Your task to perform on an android device: Go to display settings Image 0: 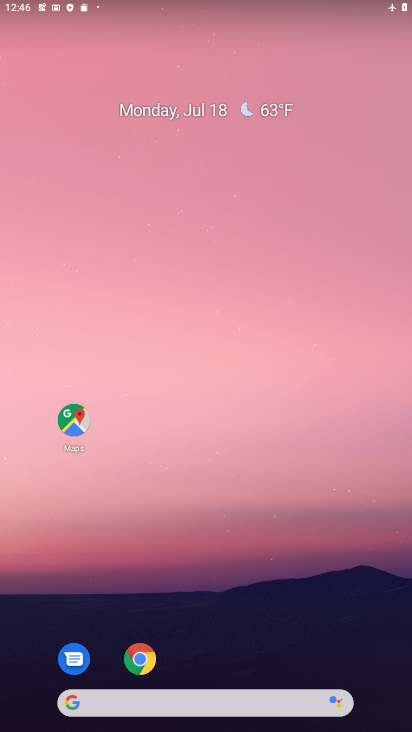
Step 0: drag from (217, 693) to (304, 205)
Your task to perform on an android device: Go to display settings Image 1: 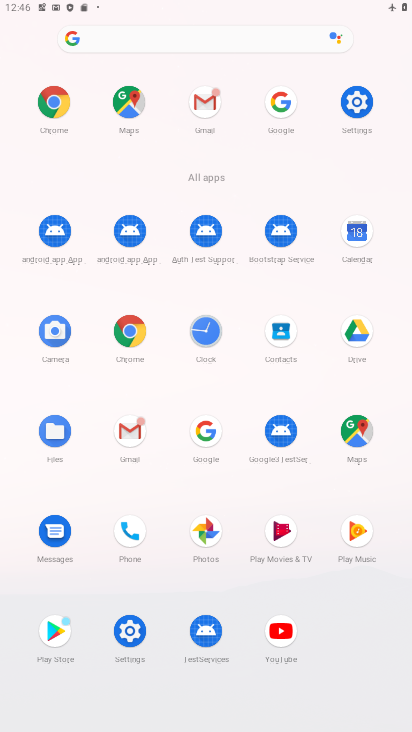
Step 1: click (355, 101)
Your task to perform on an android device: Go to display settings Image 2: 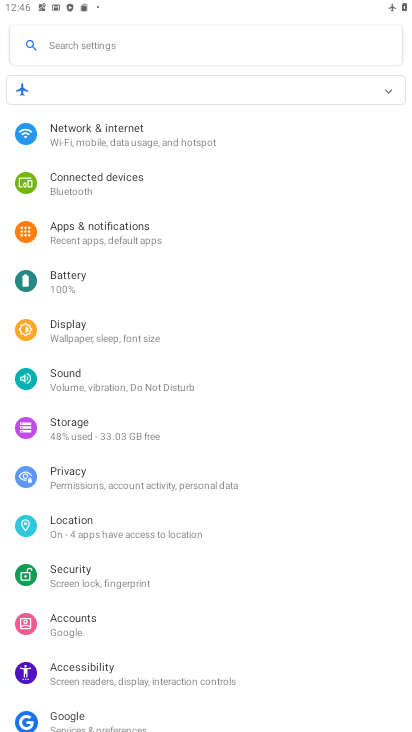
Step 2: click (83, 333)
Your task to perform on an android device: Go to display settings Image 3: 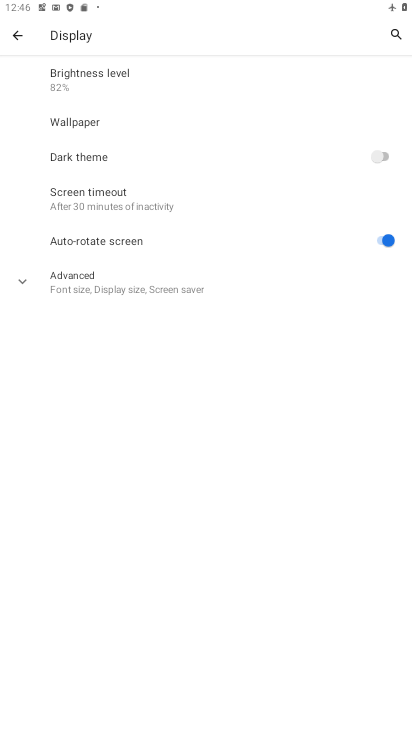
Step 3: click (83, 277)
Your task to perform on an android device: Go to display settings Image 4: 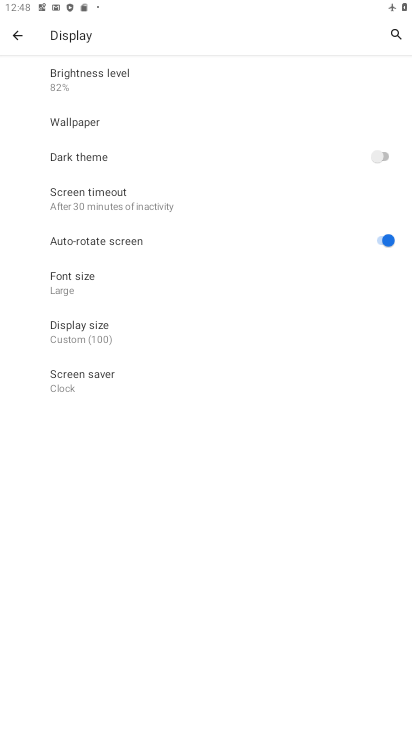
Step 4: task complete